Your task to perform on an android device: Go to Google Image 0: 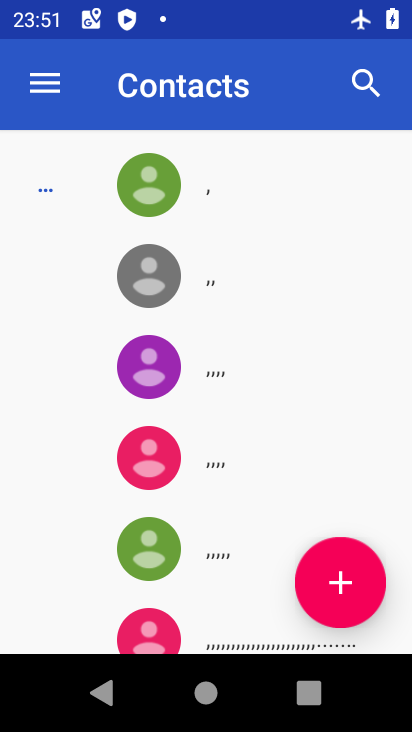
Step 0: press home button
Your task to perform on an android device: Go to Google Image 1: 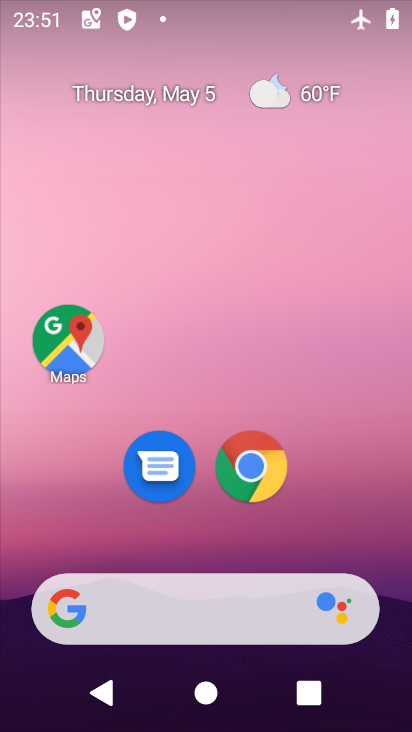
Step 1: drag from (202, 4) to (212, 406)
Your task to perform on an android device: Go to Google Image 2: 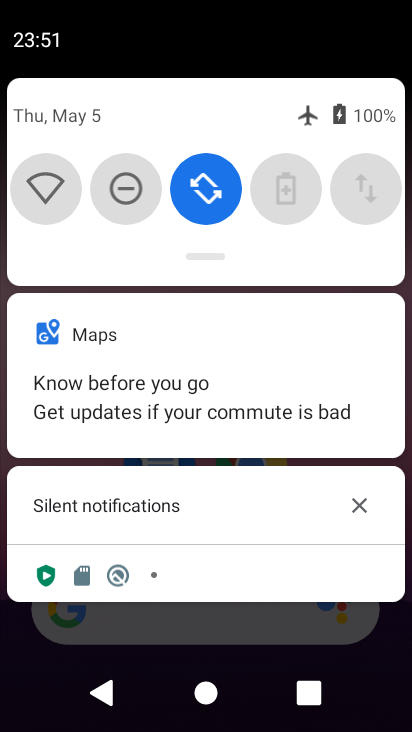
Step 2: drag from (236, 214) to (264, 512)
Your task to perform on an android device: Go to Google Image 3: 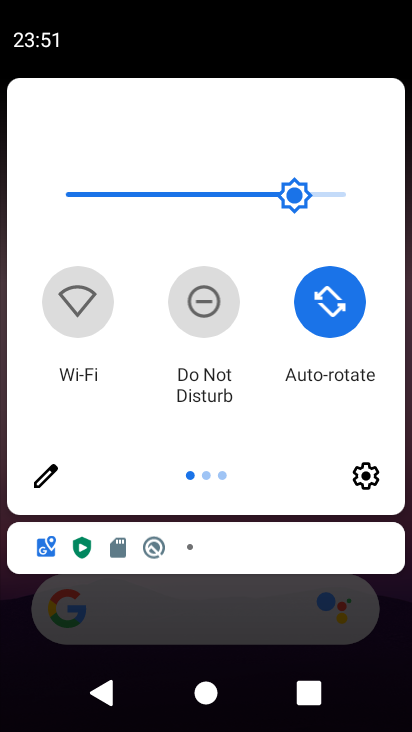
Step 3: drag from (341, 378) to (19, 413)
Your task to perform on an android device: Go to Google Image 4: 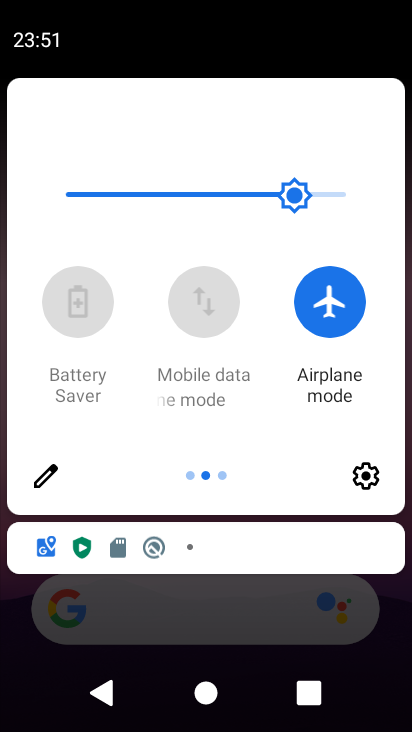
Step 4: drag from (357, 369) to (29, 497)
Your task to perform on an android device: Go to Google Image 5: 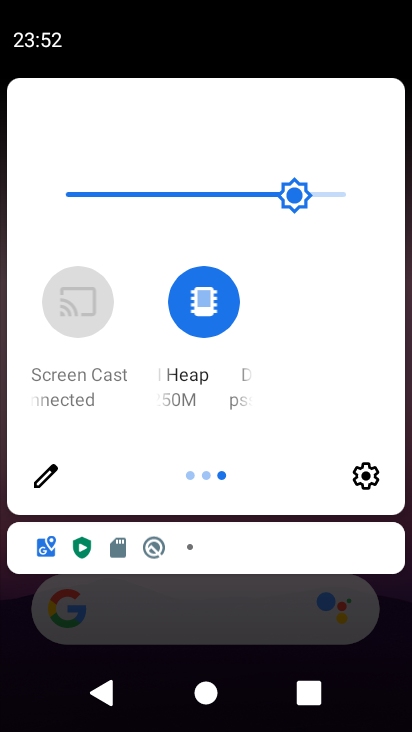
Step 5: click (49, 478)
Your task to perform on an android device: Go to Google Image 6: 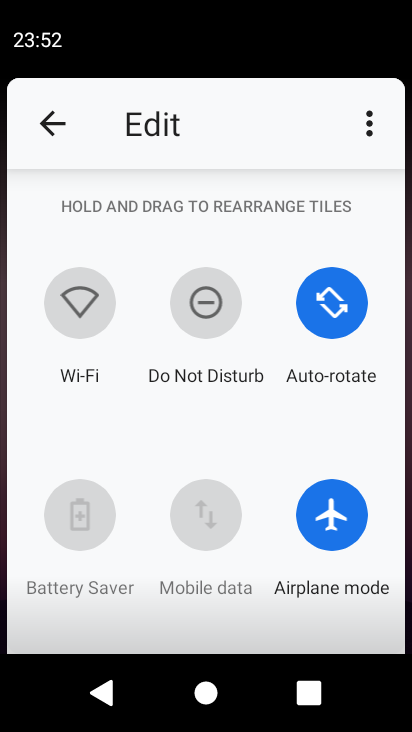
Step 6: task complete